Your task to perform on an android device: Open Reddit.com Image 0: 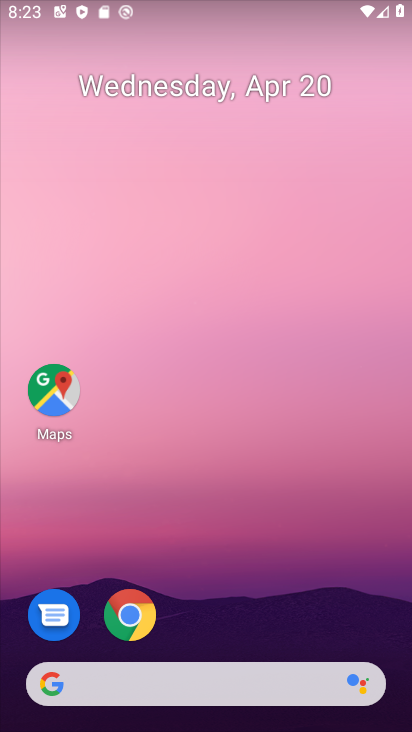
Step 0: click (129, 619)
Your task to perform on an android device: Open Reddit.com Image 1: 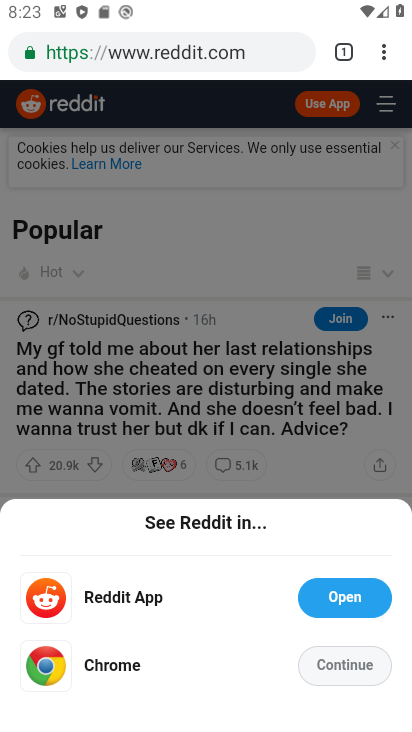
Step 1: click (272, 50)
Your task to perform on an android device: Open Reddit.com Image 2: 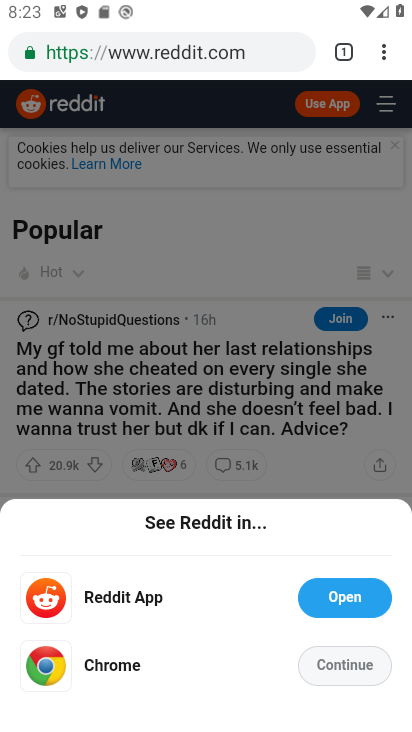
Step 2: click (272, 50)
Your task to perform on an android device: Open Reddit.com Image 3: 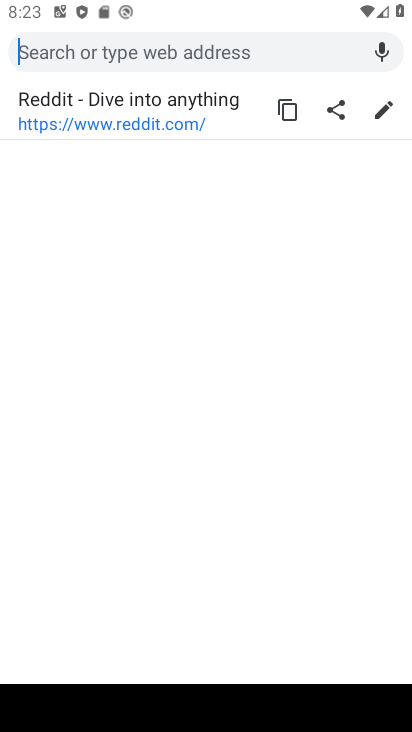
Step 3: click (272, 50)
Your task to perform on an android device: Open Reddit.com Image 4: 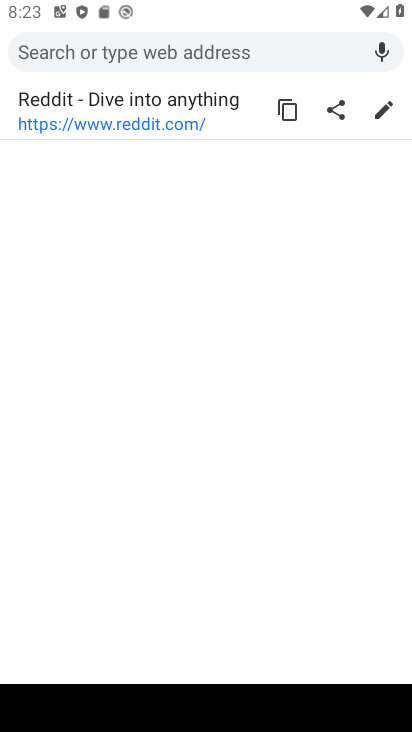
Step 4: click (134, 98)
Your task to perform on an android device: Open Reddit.com Image 5: 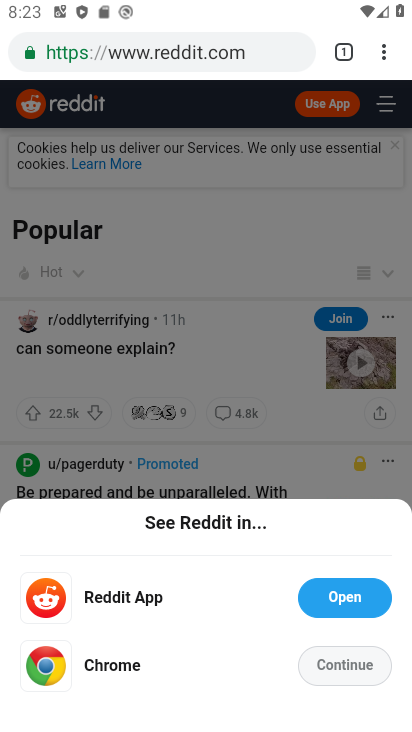
Step 5: task complete